Your task to perform on an android device: Open Amazon Image 0: 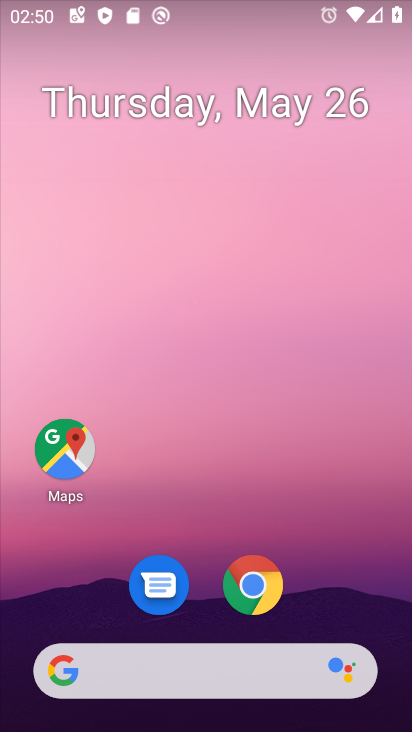
Step 0: click (272, 585)
Your task to perform on an android device: Open Amazon Image 1: 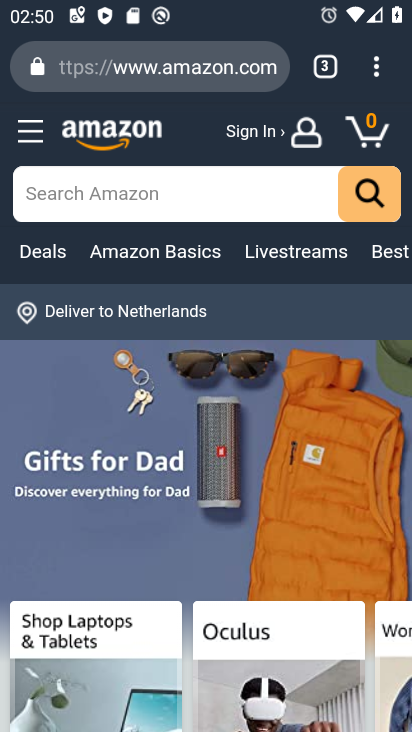
Step 1: task complete